Your task to perform on an android device: Open calendar and show me the fourth week of next month Image 0: 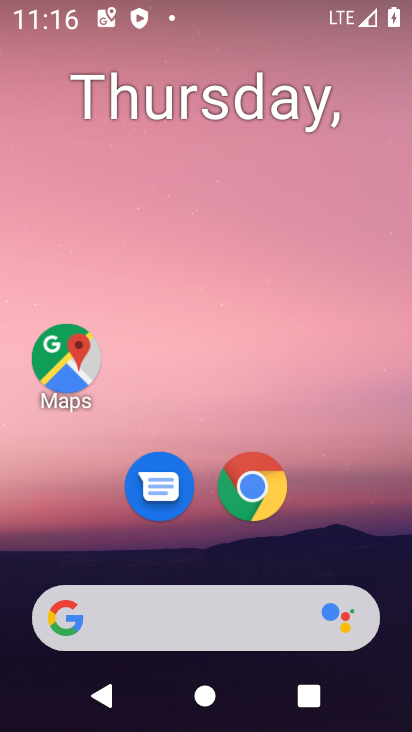
Step 0: drag from (203, 541) to (245, 27)
Your task to perform on an android device: Open calendar and show me the fourth week of next month Image 1: 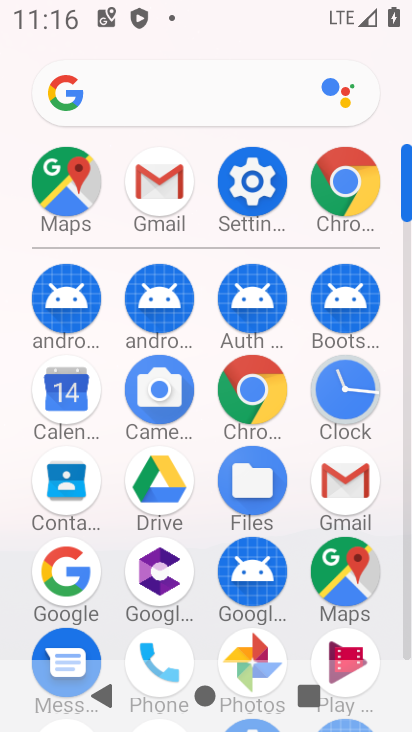
Step 1: click (75, 390)
Your task to perform on an android device: Open calendar and show me the fourth week of next month Image 2: 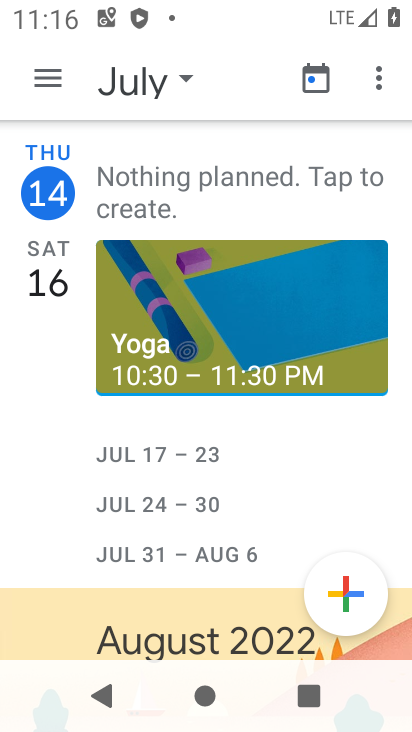
Step 2: click (174, 68)
Your task to perform on an android device: Open calendar and show me the fourth week of next month Image 3: 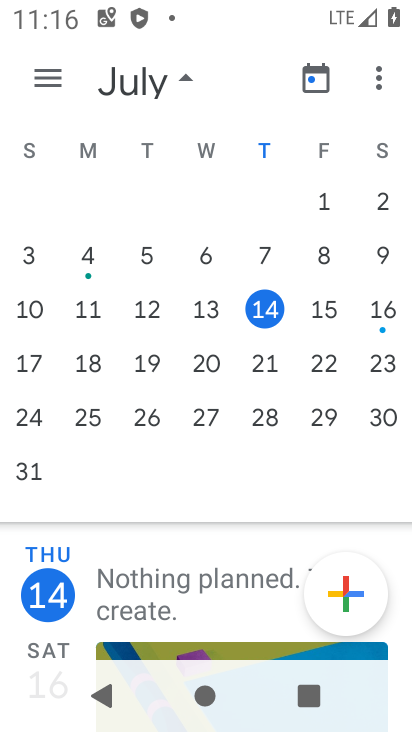
Step 3: drag from (375, 302) to (20, 285)
Your task to perform on an android device: Open calendar and show me the fourth week of next month Image 4: 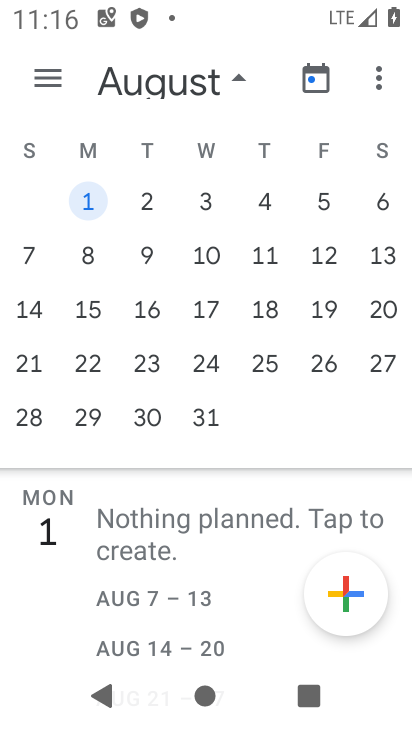
Step 4: click (84, 359)
Your task to perform on an android device: Open calendar and show me the fourth week of next month Image 5: 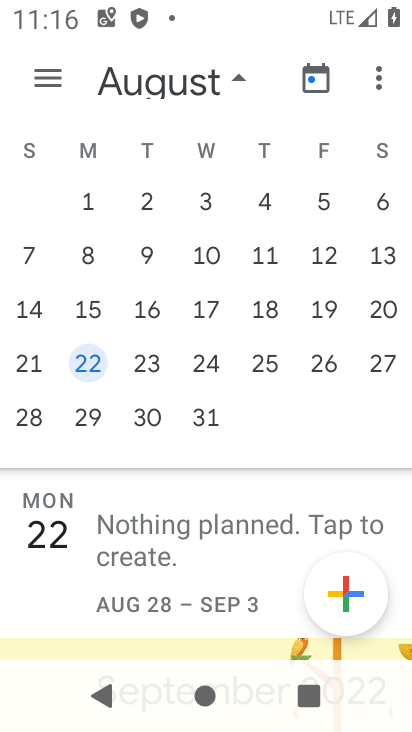
Step 5: task complete